Your task to perform on an android device: visit the assistant section in the google photos Image 0: 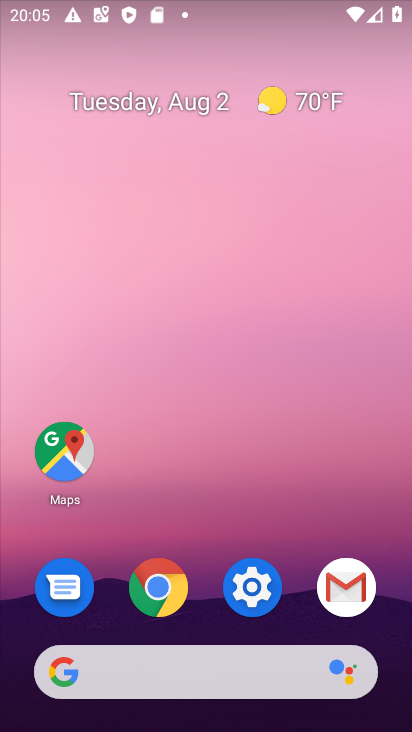
Step 0: drag from (268, 699) to (136, 190)
Your task to perform on an android device: visit the assistant section in the google photos Image 1: 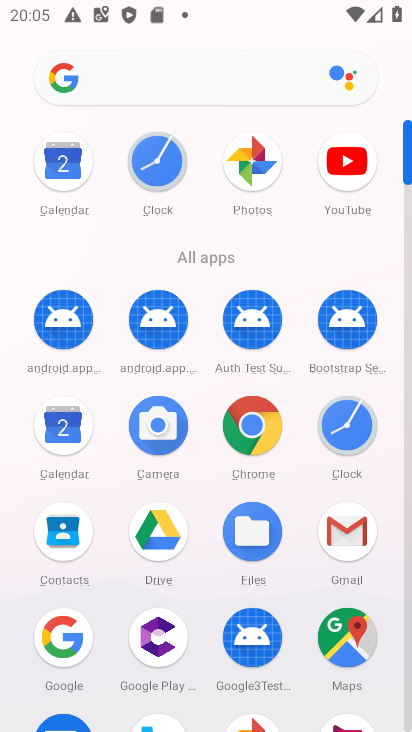
Step 1: click (237, 155)
Your task to perform on an android device: visit the assistant section in the google photos Image 2: 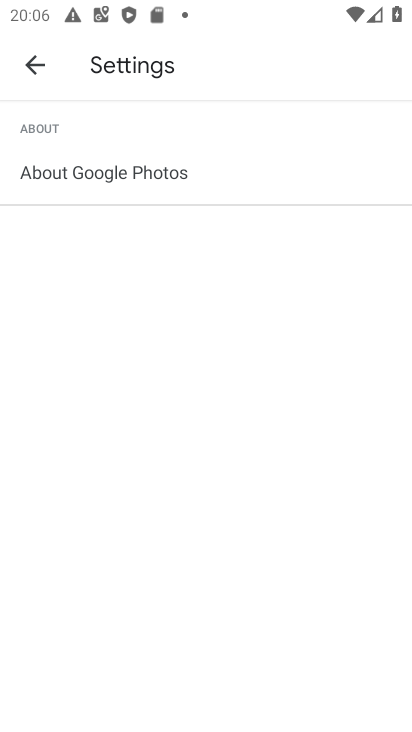
Step 2: click (24, 67)
Your task to perform on an android device: visit the assistant section in the google photos Image 3: 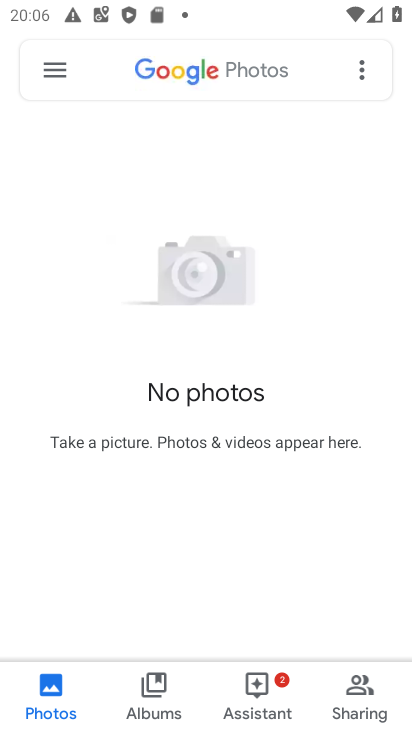
Step 3: click (270, 718)
Your task to perform on an android device: visit the assistant section in the google photos Image 4: 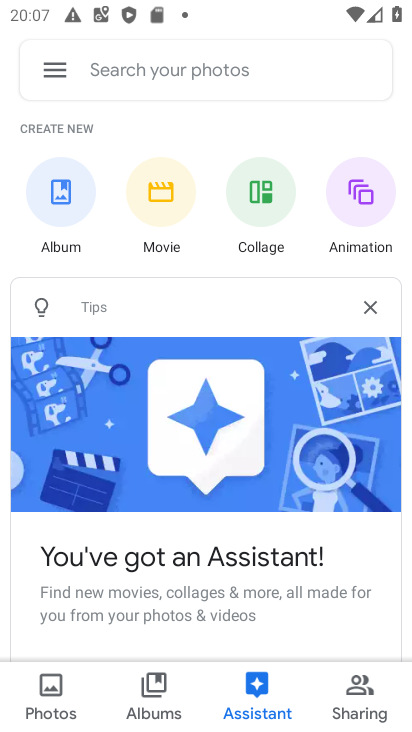
Step 4: task complete